Your task to perform on an android device: Open my contact list Image 0: 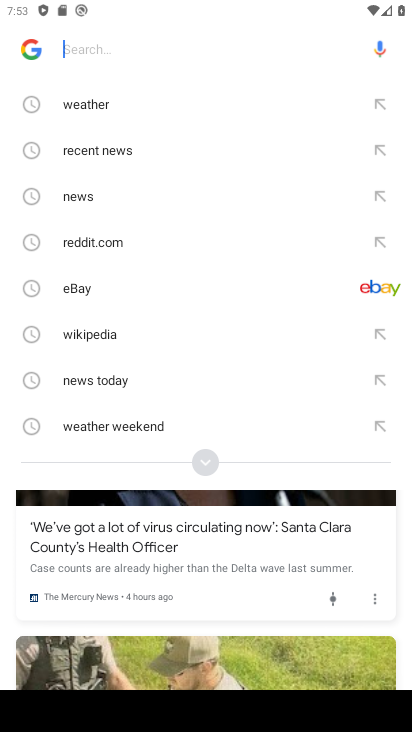
Step 0: press back button
Your task to perform on an android device: Open my contact list Image 1: 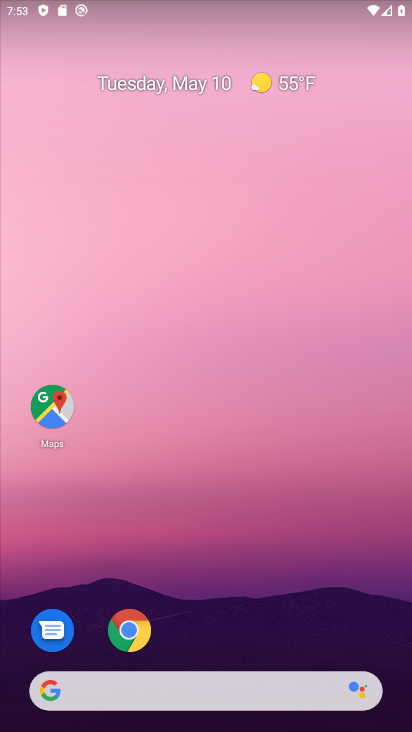
Step 1: drag from (202, 528) to (134, 7)
Your task to perform on an android device: Open my contact list Image 2: 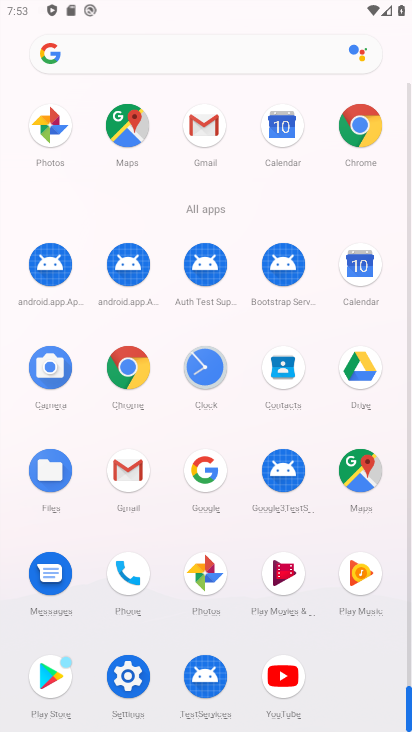
Step 2: drag from (17, 536) to (38, 254)
Your task to perform on an android device: Open my contact list Image 3: 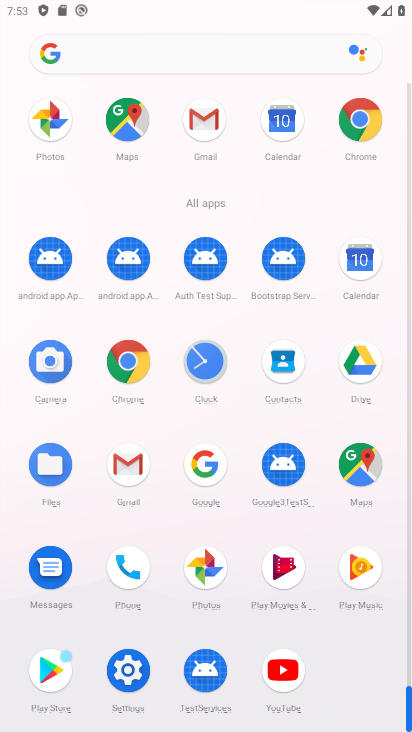
Step 3: click (281, 358)
Your task to perform on an android device: Open my contact list Image 4: 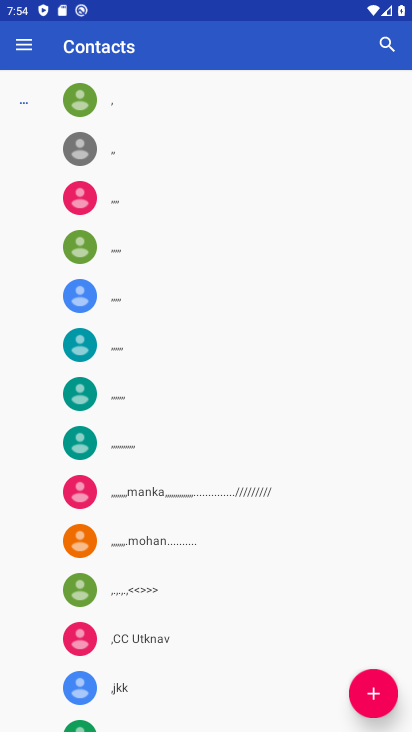
Step 4: task complete